Your task to perform on an android device: turn pop-ups on in chrome Image 0: 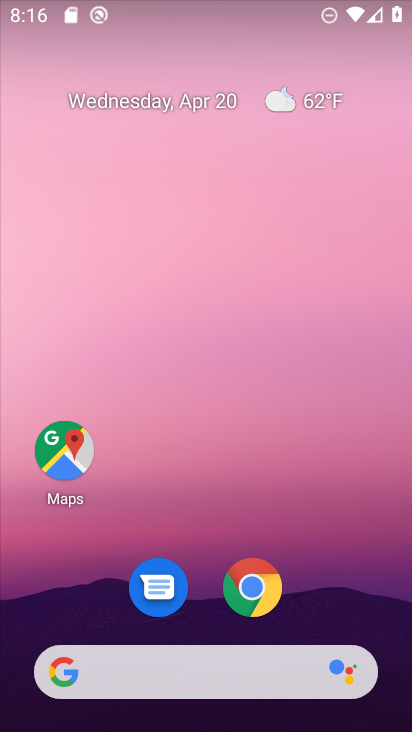
Step 0: click (279, 606)
Your task to perform on an android device: turn pop-ups on in chrome Image 1: 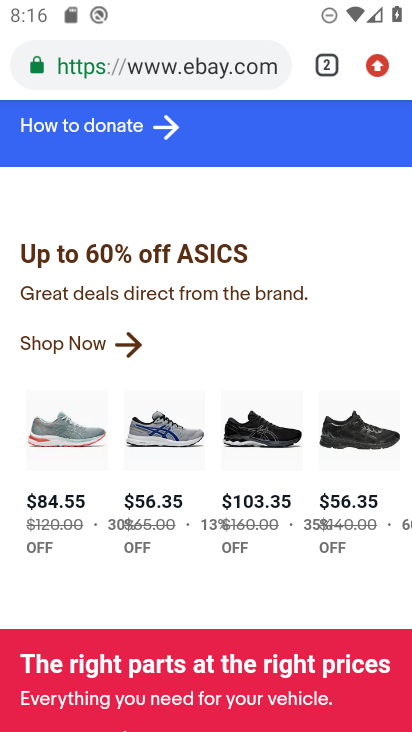
Step 1: click (376, 83)
Your task to perform on an android device: turn pop-ups on in chrome Image 2: 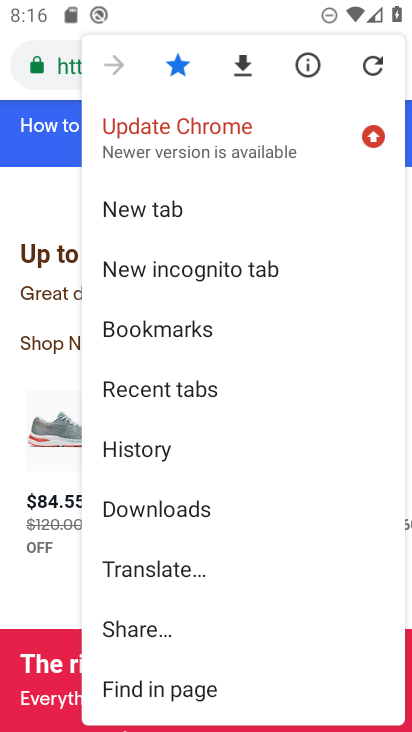
Step 2: drag from (280, 637) to (261, 303)
Your task to perform on an android device: turn pop-ups on in chrome Image 3: 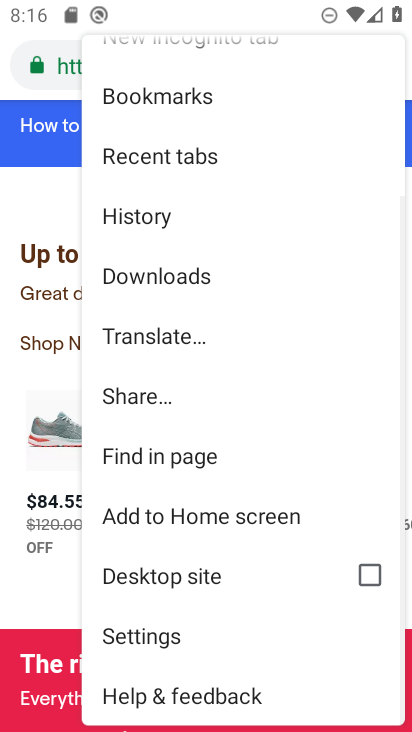
Step 3: click (184, 639)
Your task to perform on an android device: turn pop-ups on in chrome Image 4: 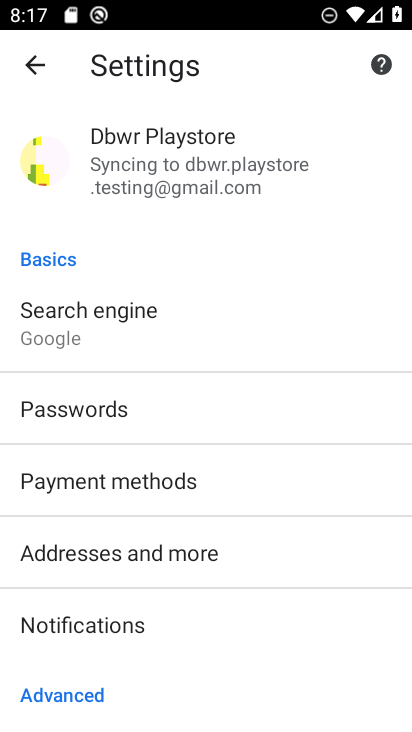
Step 4: drag from (159, 580) to (155, 210)
Your task to perform on an android device: turn pop-ups on in chrome Image 5: 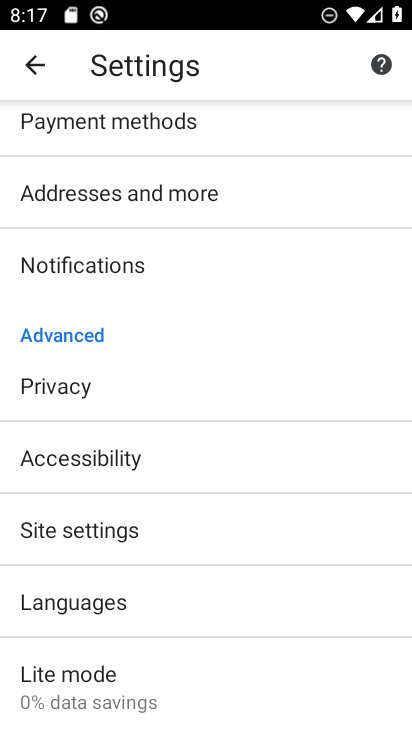
Step 5: click (124, 530)
Your task to perform on an android device: turn pop-ups on in chrome Image 6: 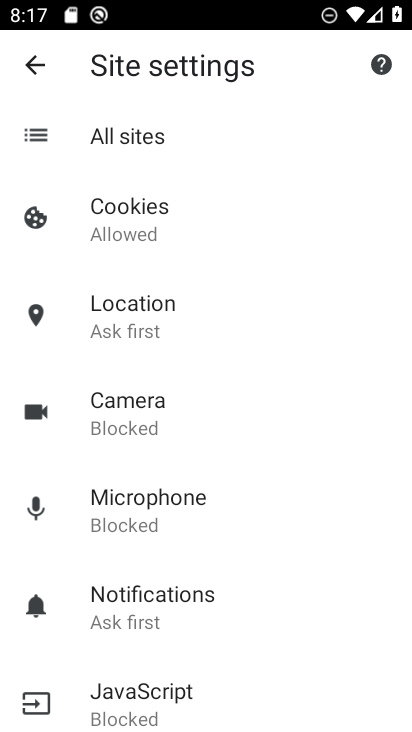
Step 6: drag from (221, 674) to (193, 229)
Your task to perform on an android device: turn pop-ups on in chrome Image 7: 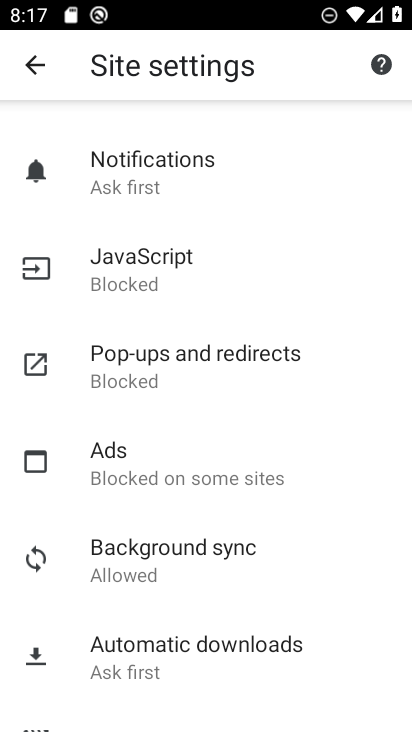
Step 7: click (147, 371)
Your task to perform on an android device: turn pop-ups on in chrome Image 8: 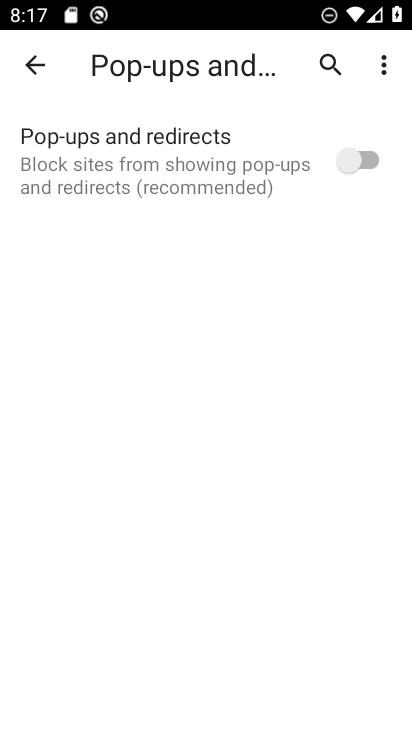
Step 8: click (360, 171)
Your task to perform on an android device: turn pop-ups on in chrome Image 9: 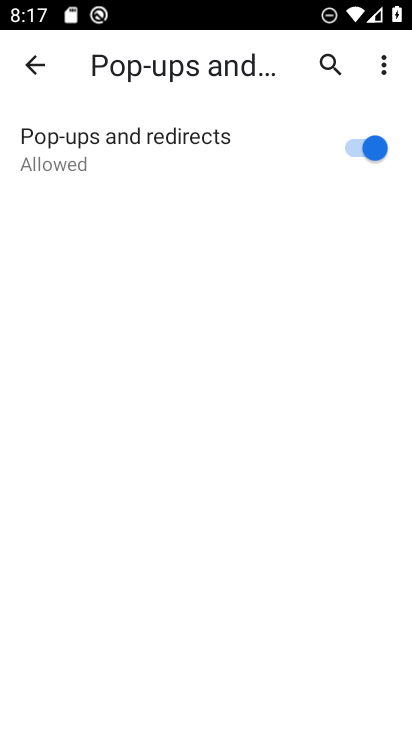
Step 9: task complete